Your task to perform on an android device: Open ESPN.com Image 0: 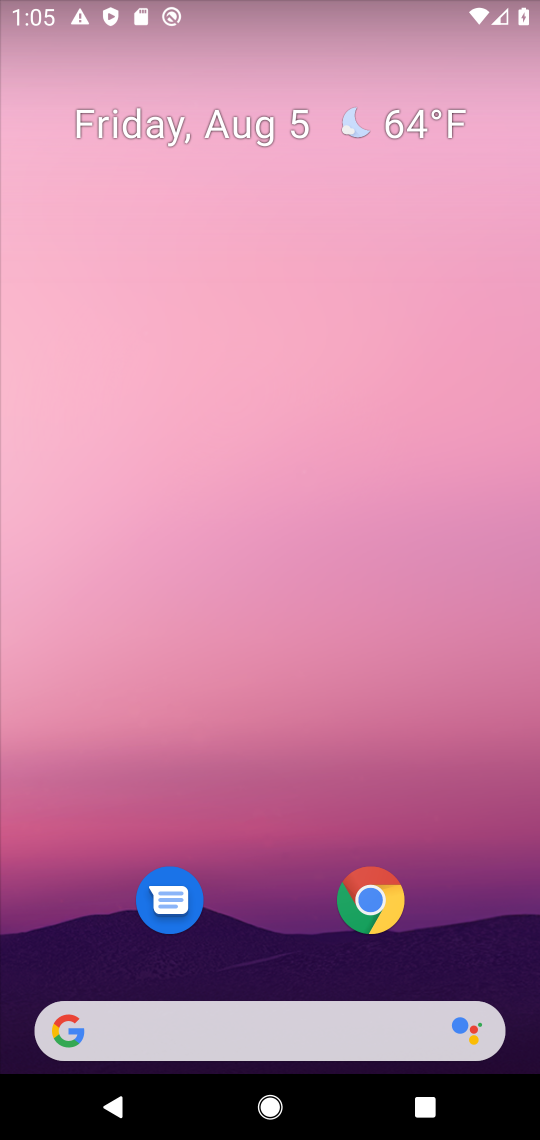
Step 0: press home button
Your task to perform on an android device: Open ESPN.com Image 1: 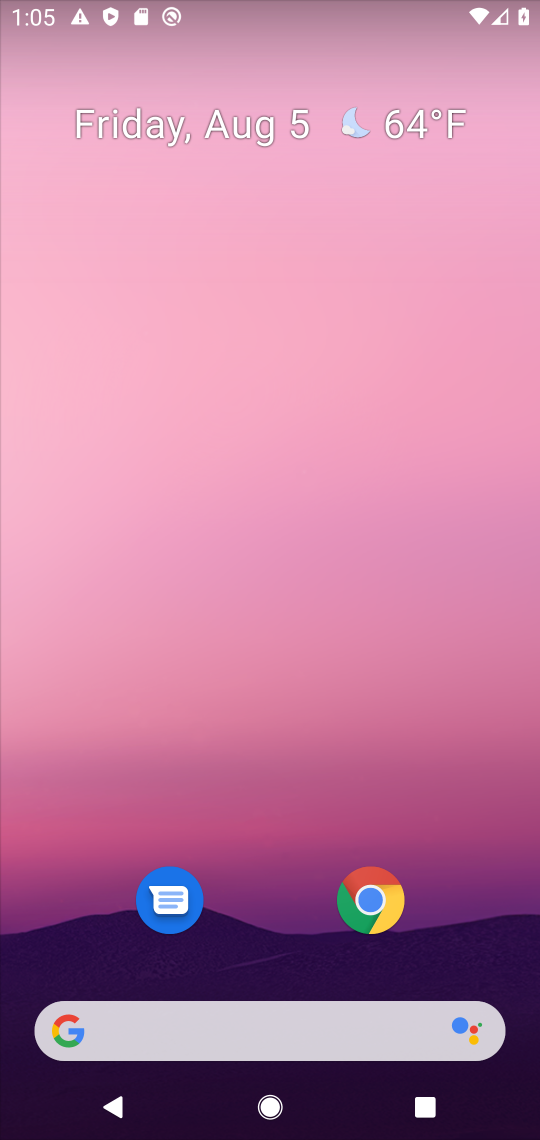
Step 1: click (369, 894)
Your task to perform on an android device: Open ESPN.com Image 2: 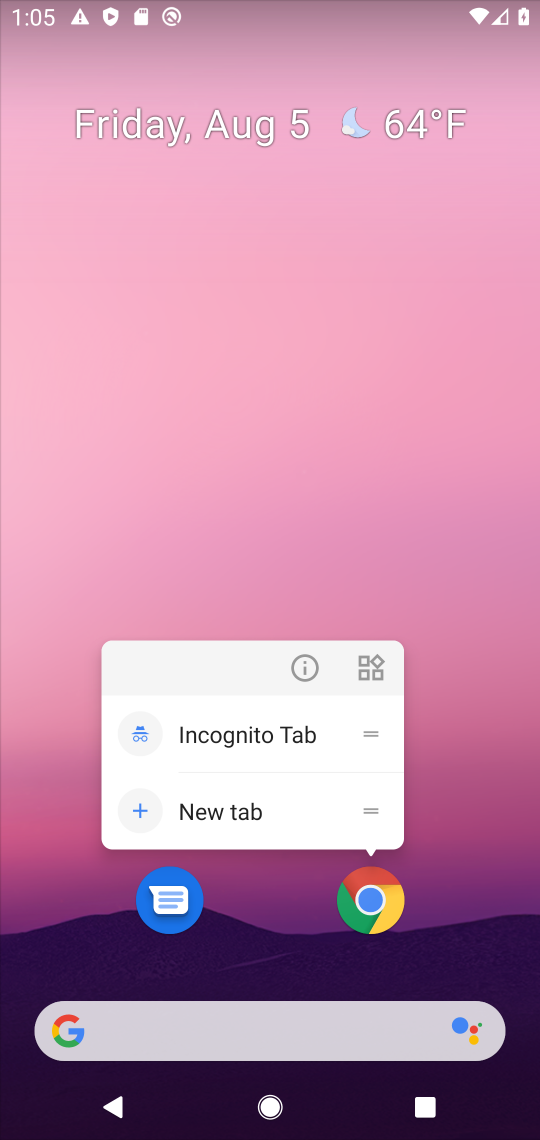
Step 2: click (373, 890)
Your task to perform on an android device: Open ESPN.com Image 3: 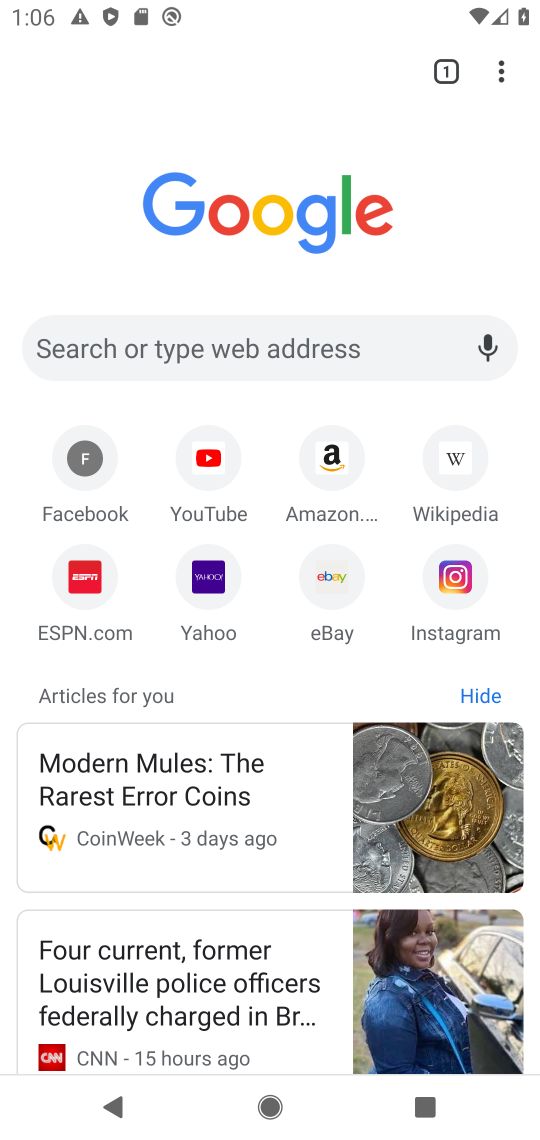
Step 3: click (86, 573)
Your task to perform on an android device: Open ESPN.com Image 4: 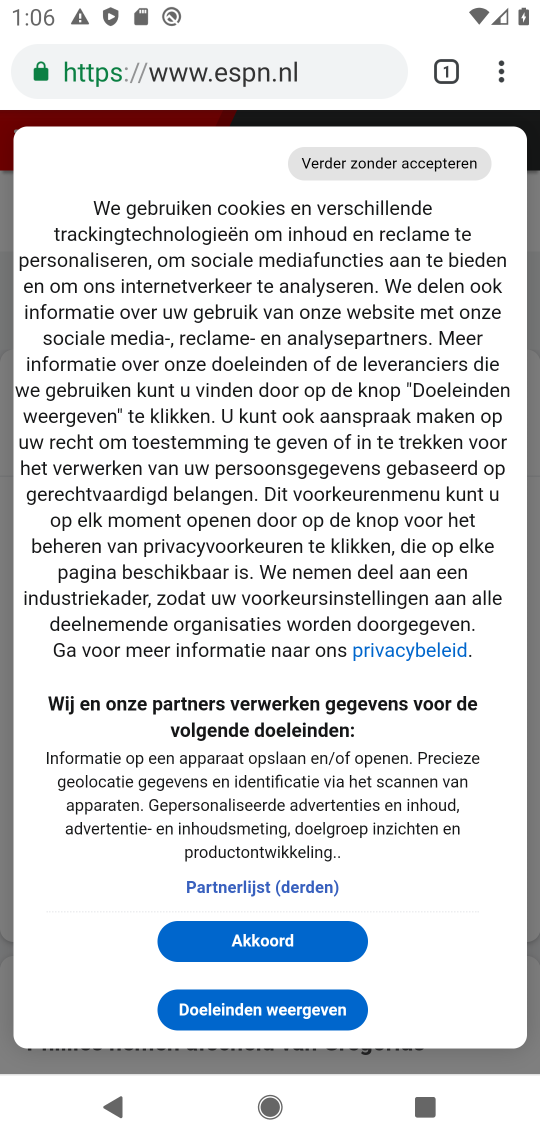
Step 4: click (285, 935)
Your task to perform on an android device: Open ESPN.com Image 5: 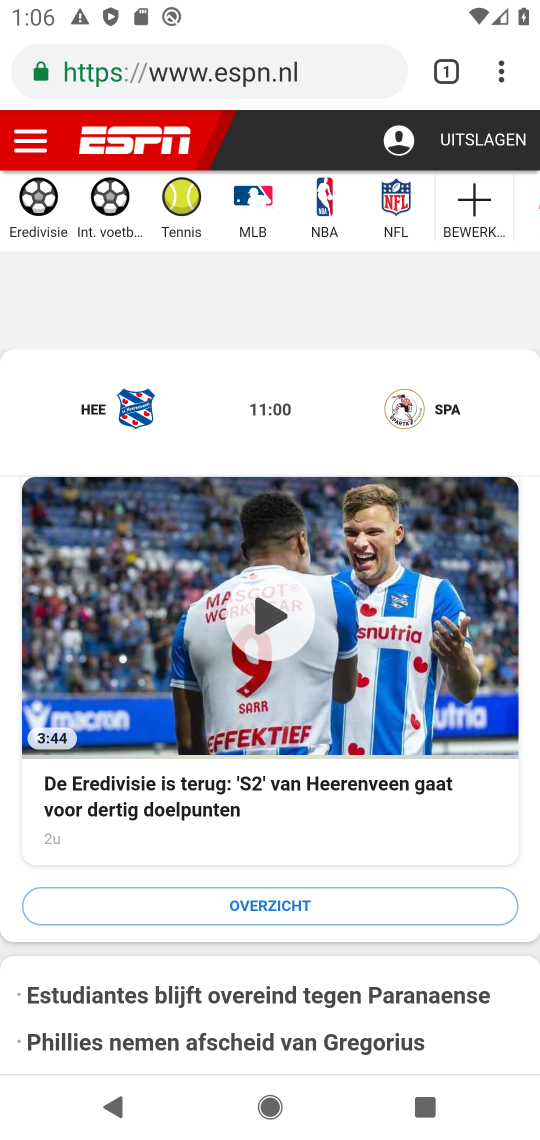
Step 5: task complete